Your task to perform on an android device: turn off priority inbox in the gmail app Image 0: 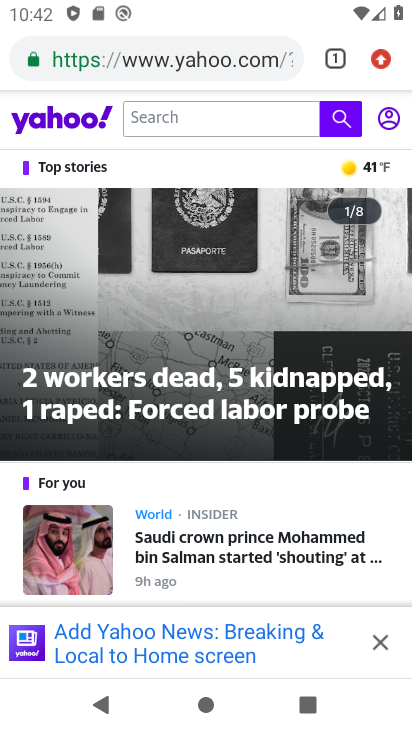
Step 0: press back button
Your task to perform on an android device: turn off priority inbox in the gmail app Image 1: 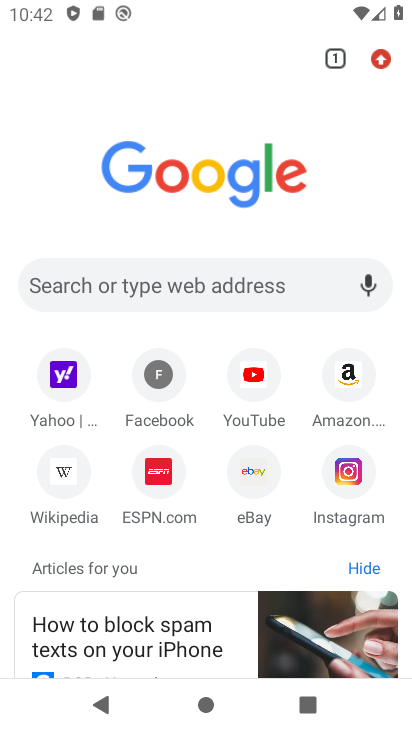
Step 1: press back button
Your task to perform on an android device: turn off priority inbox in the gmail app Image 2: 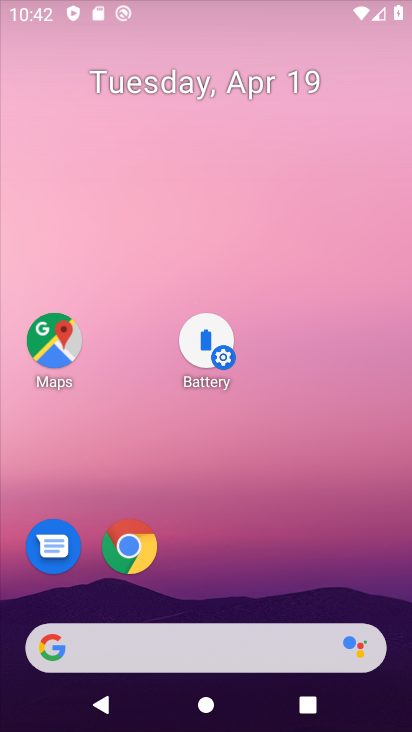
Step 2: drag from (204, 513) to (314, 63)
Your task to perform on an android device: turn off priority inbox in the gmail app Image 3: 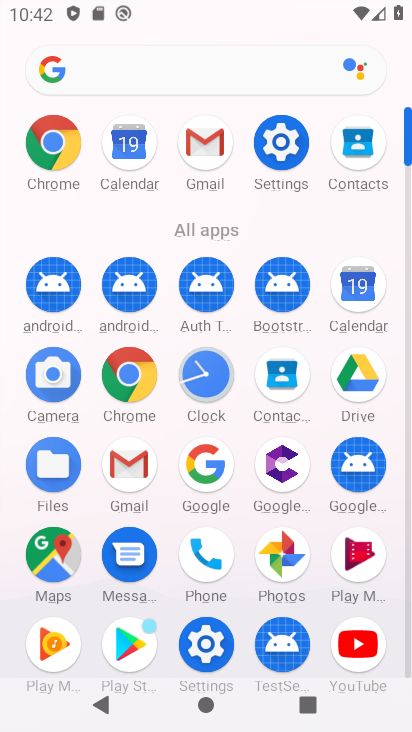
Step 3: click (212, 138)
Your task to perform on an android device: turn off priority inbox in the gmail app Image 4: 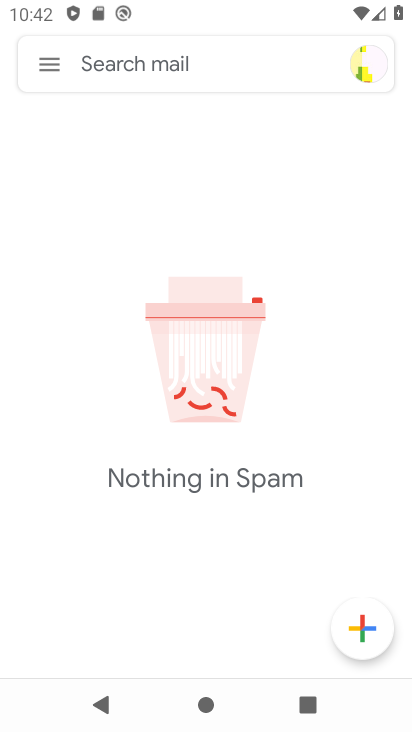
Step 4: click (53, 64)
Your task to perform on an android device: turn off priority inbox in the gmail app Image 5: 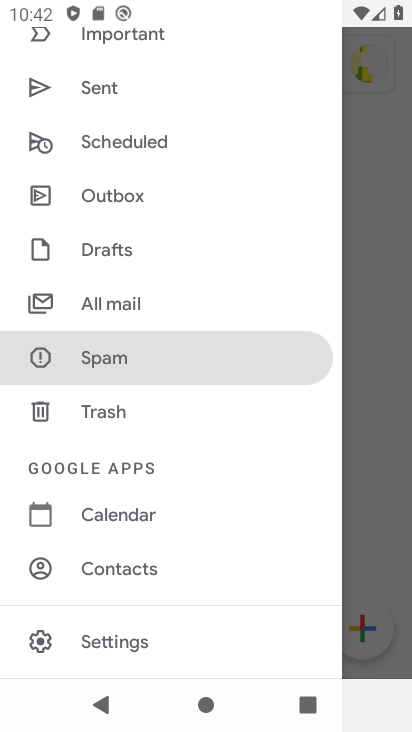
Step 5: click (128, 632)
Your task to perform on an android device: turn off priority inbox in the gmail app Image 6: 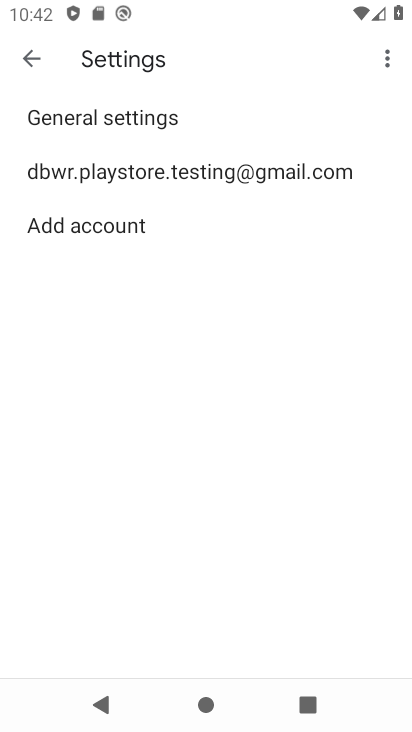
Step 6: click (156, 167)
Your task to perform on an android device: turn off priority inbox in the gmail app Image 7: 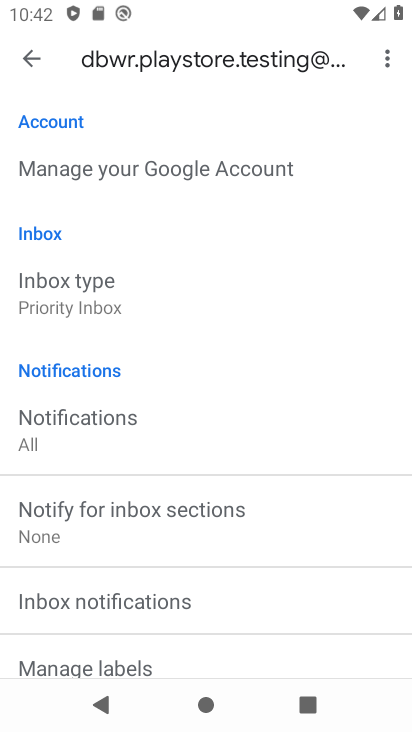
Step 7: click (85, 310)
Your task to perform on an android device: turn off priority inbox in the gmail app Image 8: 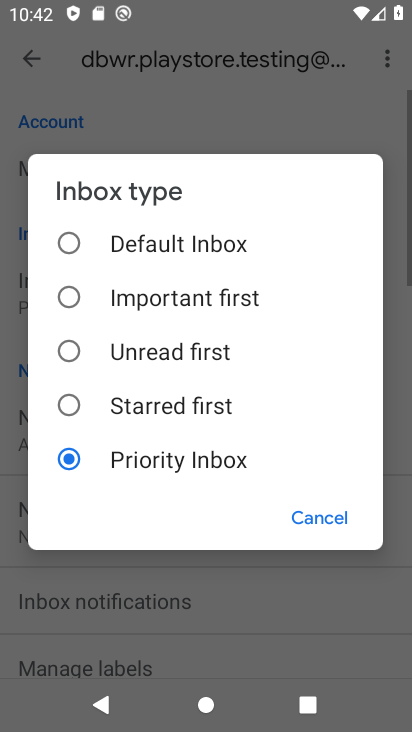
Step 8: click (142, 252)
Your task to perform on an android device: turn off priority inbox in the gmail app Image 9: 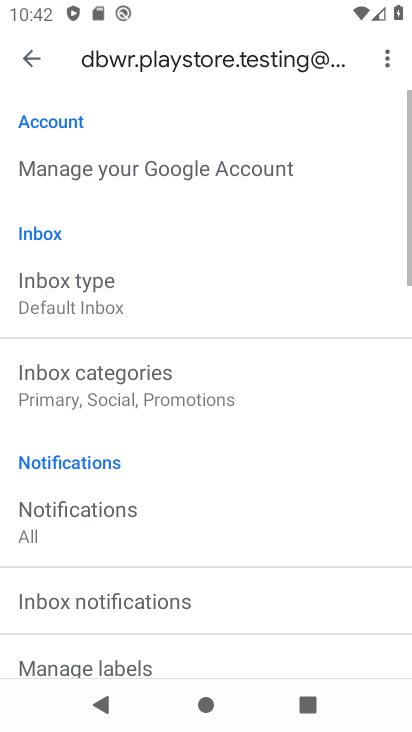
Step 9: task complete